Your task to perform on an android device: Check the weather Image 0: 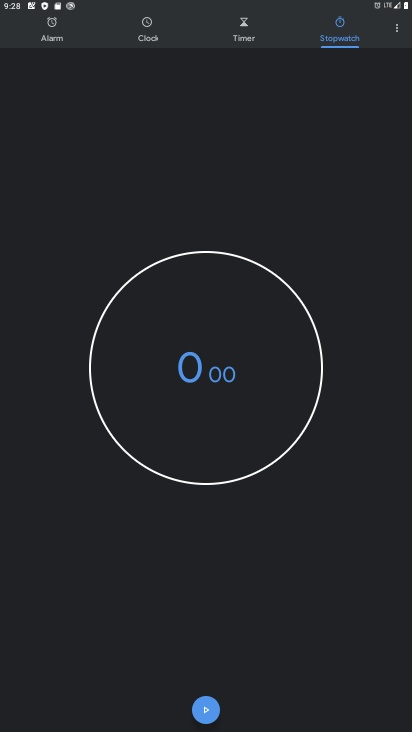
Step 0: press home button
Your task to perform on an android device: Check the weather Image 1: 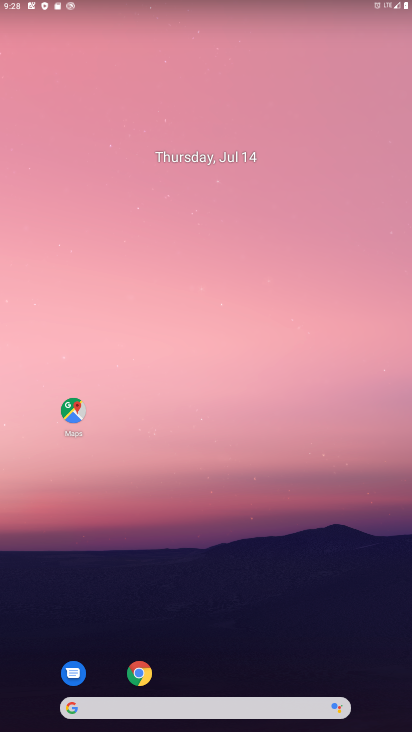
Step 1: drag from (254, 708) to (208, 291)
Your task to perform on an android device: Check the weather Image 2: 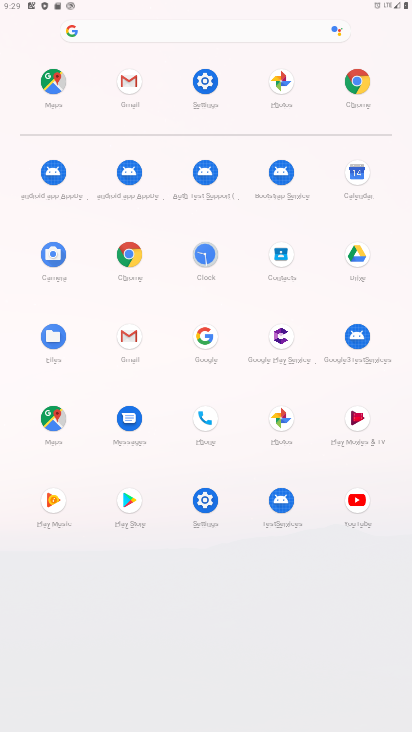
Step 2: click (203, 337)
Your task to perform on an android device: Check the weather Image 3: 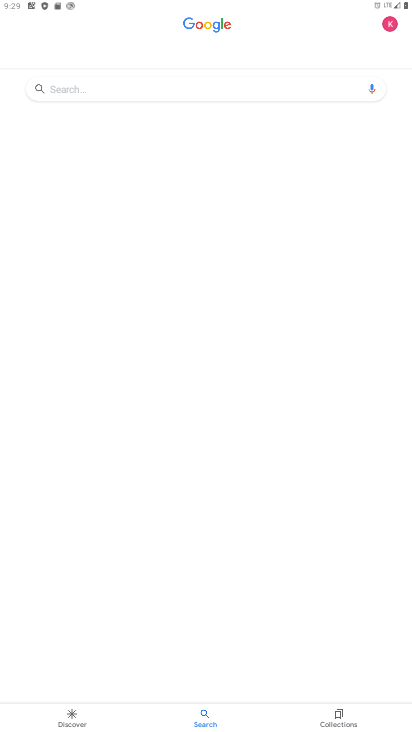
Step 3: click (154, 83)
Your task to perform on an android device: Check the weather Image 4: 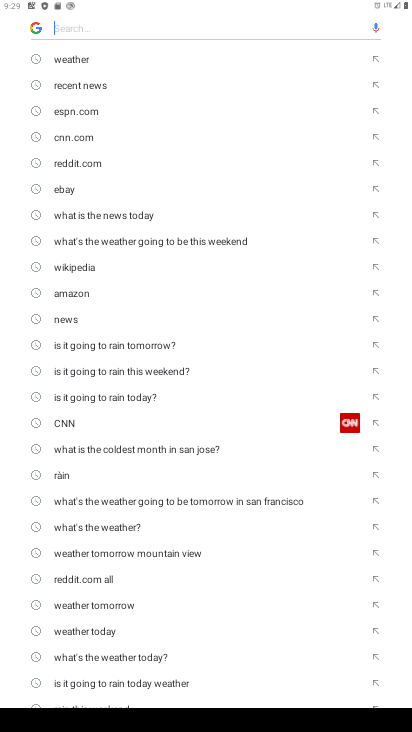
Step 4: click (73, 56)
Your task to perform on an android device: Check the weather Image 5: 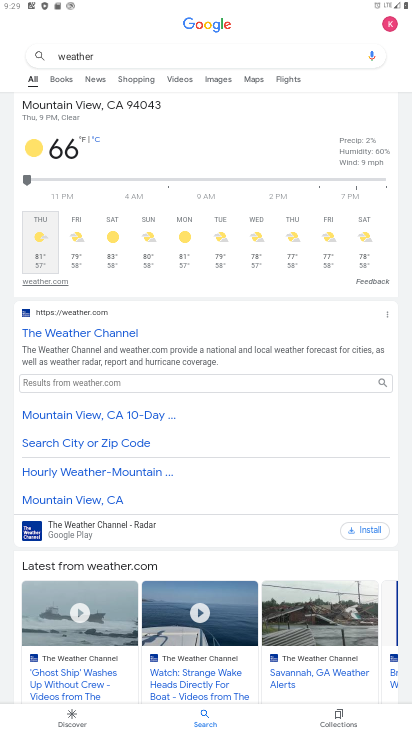
Step 5: task complete